Your task to perform on an android device: Go to CNN.com Image 0: 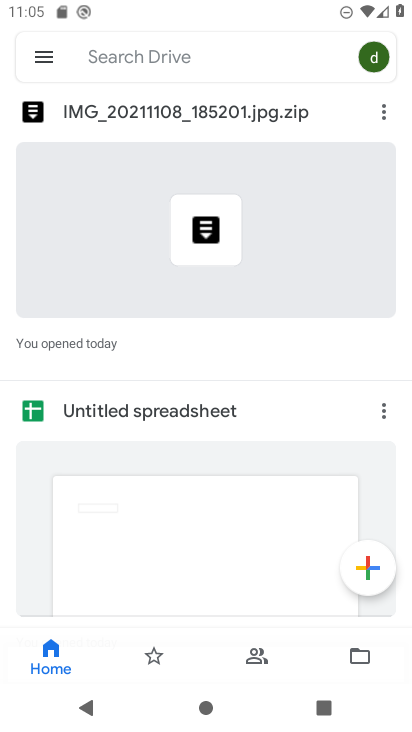
Step 0: drag from (251, 546) to (304, 431)
Your task to perform on an android device: Go to CNN.com Image 1: 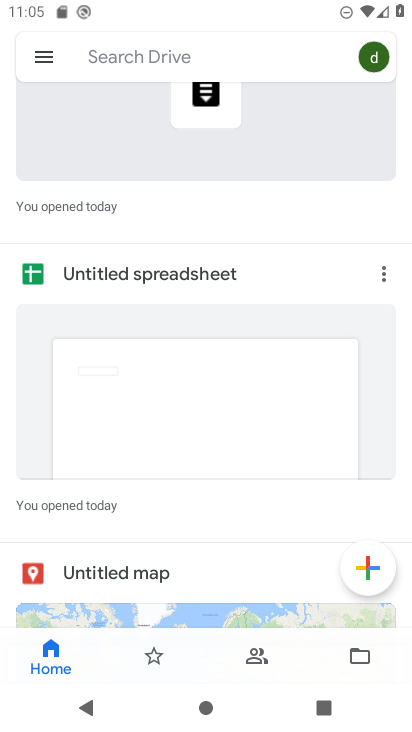
Step 1: press home button
Your task to perform on an android device: Go to CNN.com Image 2: 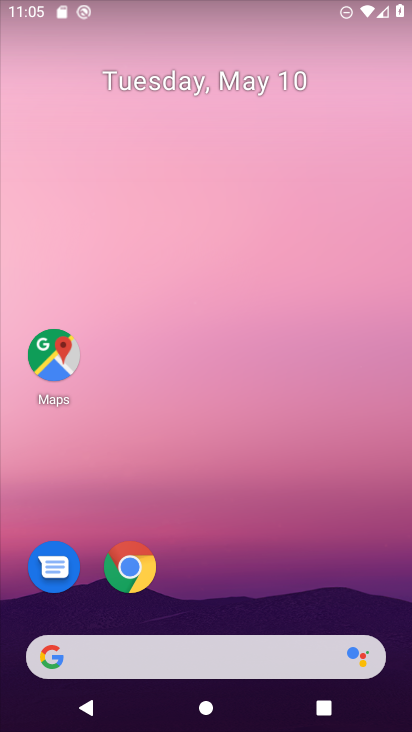
Step 2: click (140, 562)
Your task to perform on an android device: Go to CNN.com Image 3: 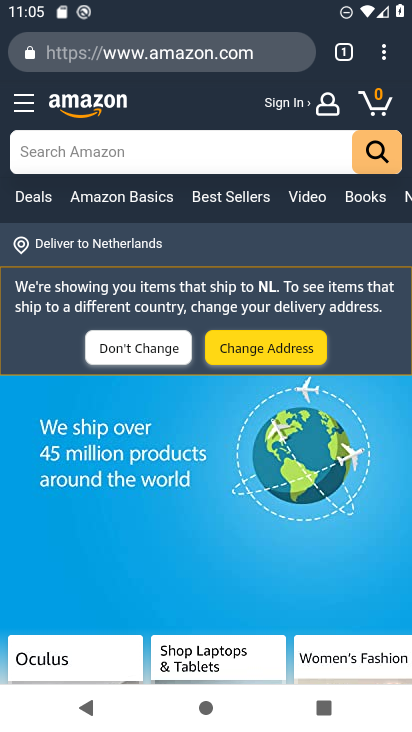
Step 3: click (225, 50)
Your task to perform on an android device: Go to CNN.com Image 4: 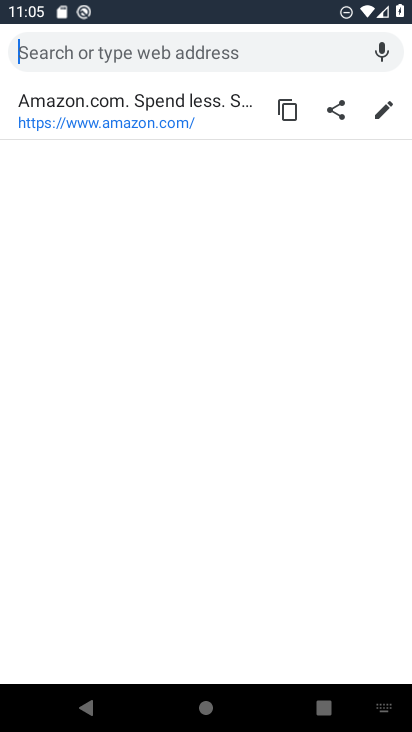
Step 4: type "CNN.com"
Your task to perform on an android device: Go to CNN.com Image 5: 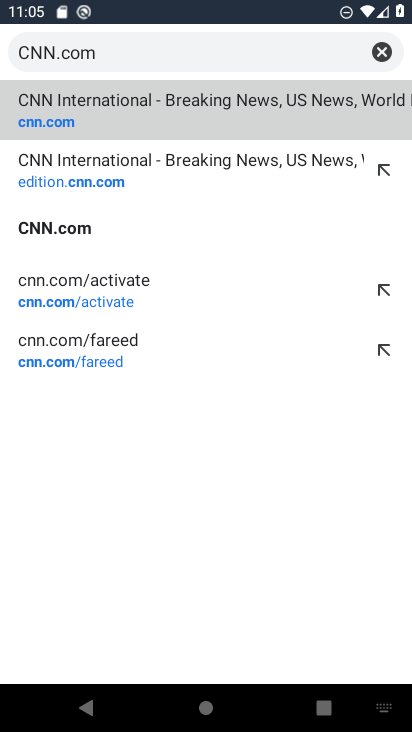
Step 5: click (71, 114)
Your task to perform on an android device: Go to CNN.com Image 6: 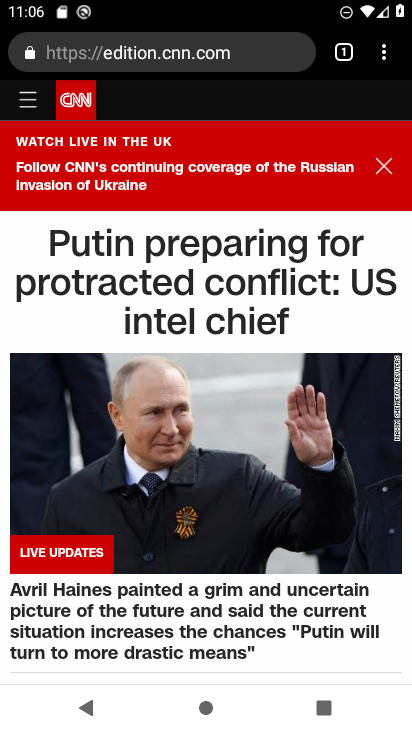
Step 6: task complete